Your task to perform on an android device: Open maps Image 0: 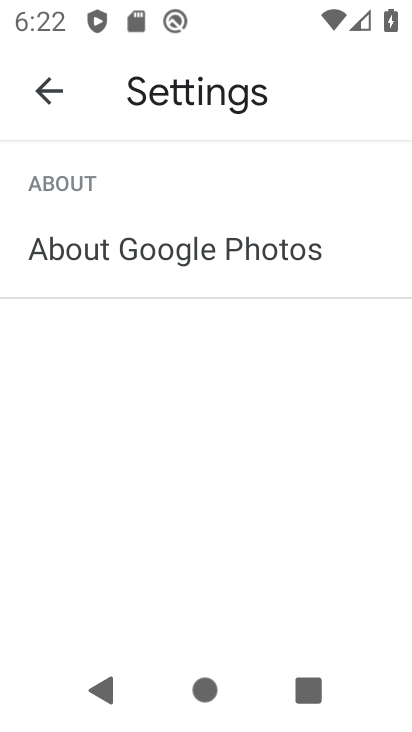
Step 0: press home button
Your task to perform on an android device: Open maps Image 1: 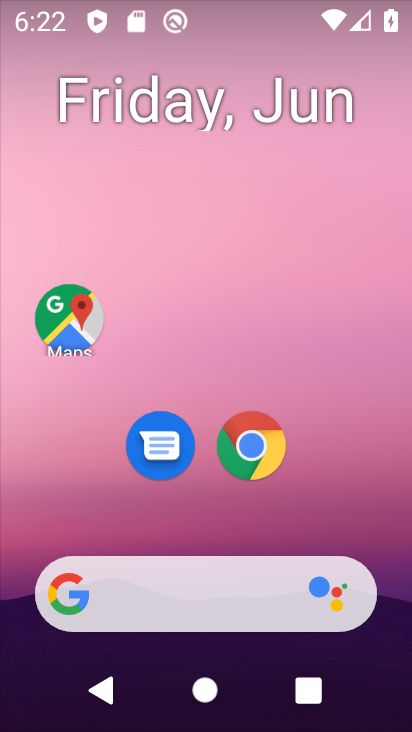
Step 1: drag from (186, 527) to (186, 131)
Your task to perform on an android device: Open maps Image 2: 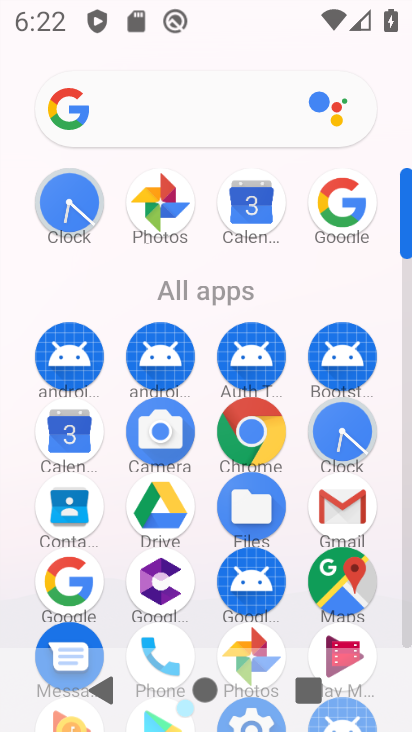
Step 2: click (329, 593)
Your task to perform on an android device: Open maps Image 3: 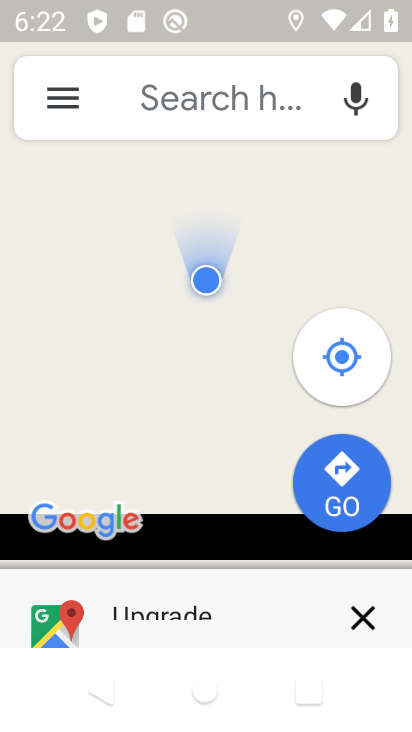
Step 3: task complete